Your task to perform on an android device: turn on wifi Image 0: 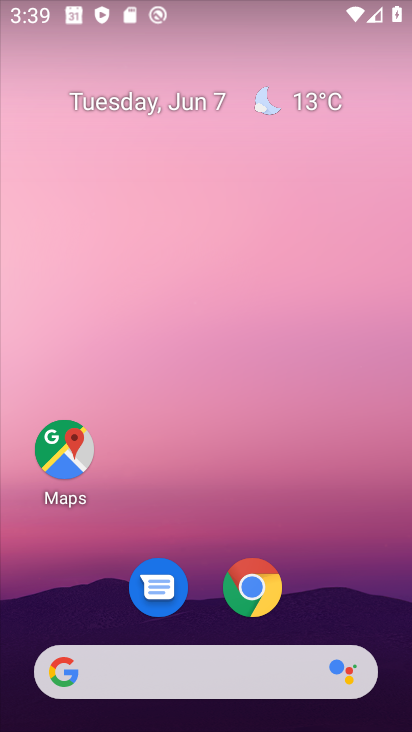
Step 0: drag from (222, 635) to (259, 165)
Your task to perform on an android device: turn on wifi Image 1: 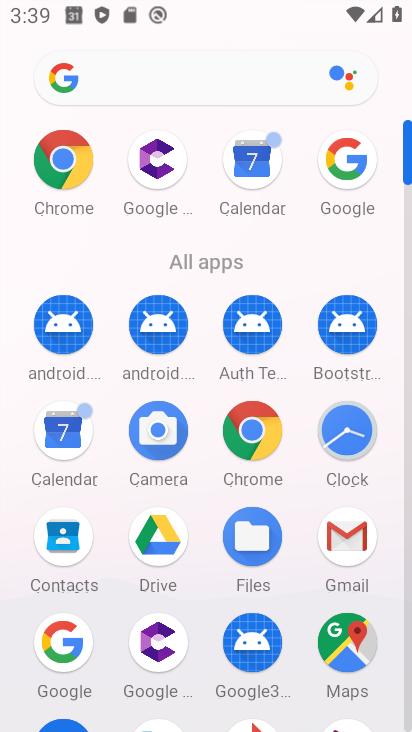
Step 1: drag from (211, 585) to (263, 119)
Your task to perform on an android device: turn on wifi Image 2: 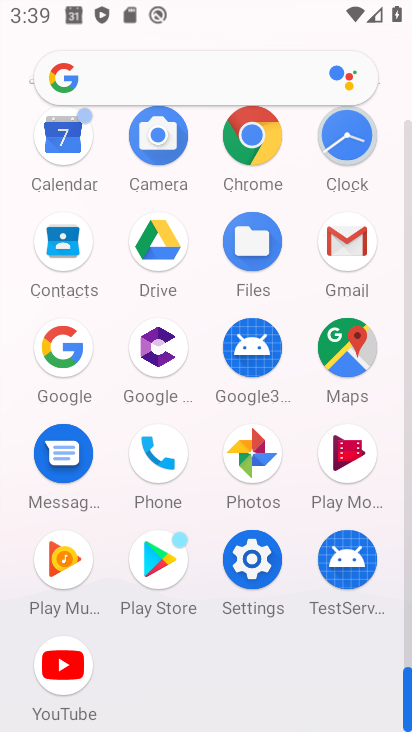
Step 2: click (267, 563)
Your task to perform on an android device: turn on wifi Image 3: 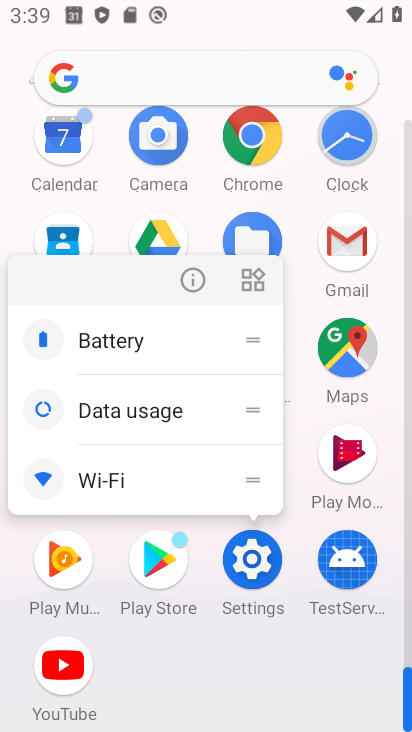
Step 3: click (268, 576)
Your task to perform on an android device: turn on wifi Image 4: 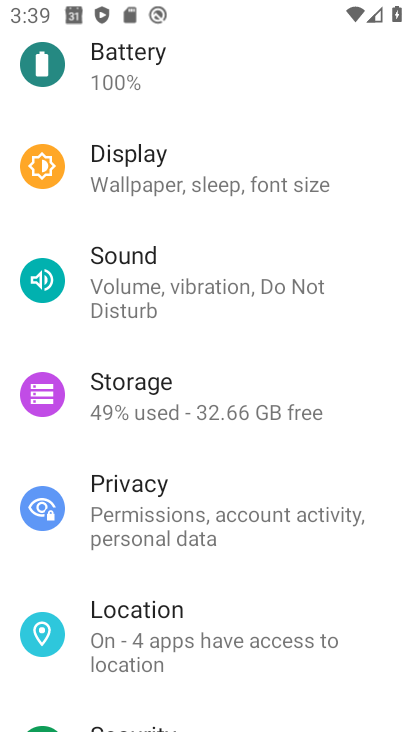
Step 4: drag from (233, 315) to (233, 717)
Your task to perform on an android device: turn on wifi Image 5: 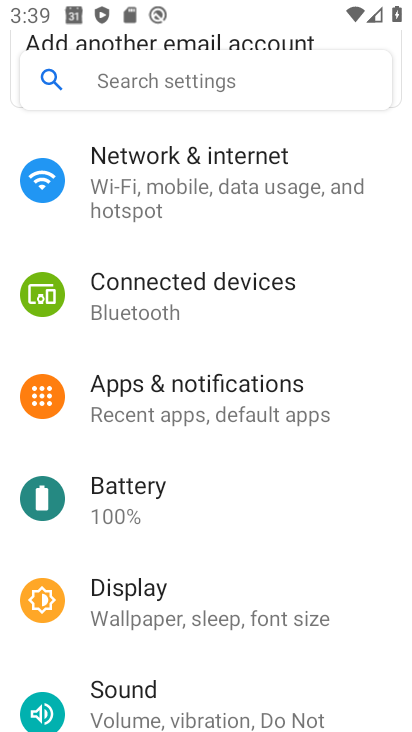
Step 5: drag from (246, 274) to (261, 606)
Your task to perform on an android device: turn on wifi Image 6: 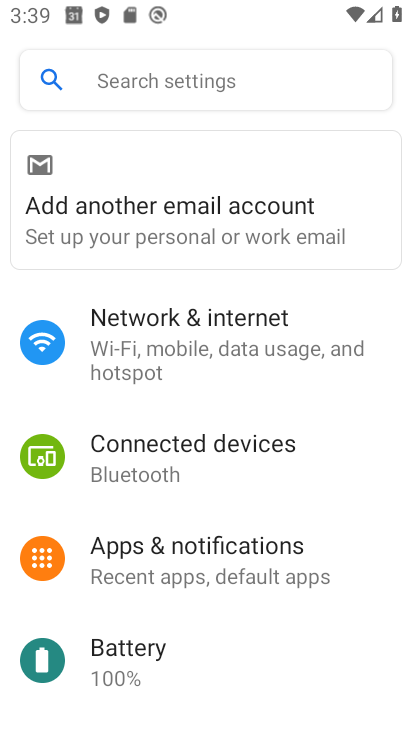
Step 6: click (252, 360)
Your task to perform on an android device: turn on wifi Image 7: 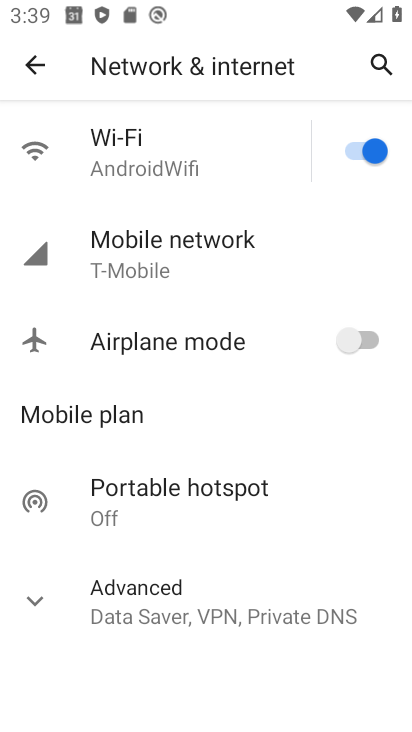
Step 7: task complete